Your task to perform on an android device: turn vacation reply on in the gmail app Image 0: 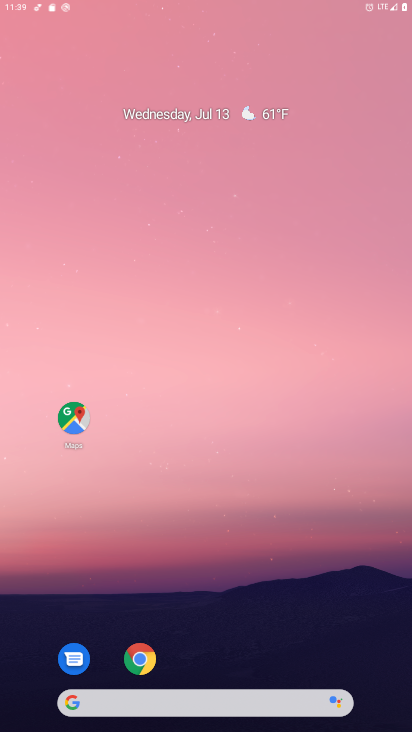
Step 0: press home button
Your task to perform on an android device: turn vacation reply on in the gmail app Image 1: 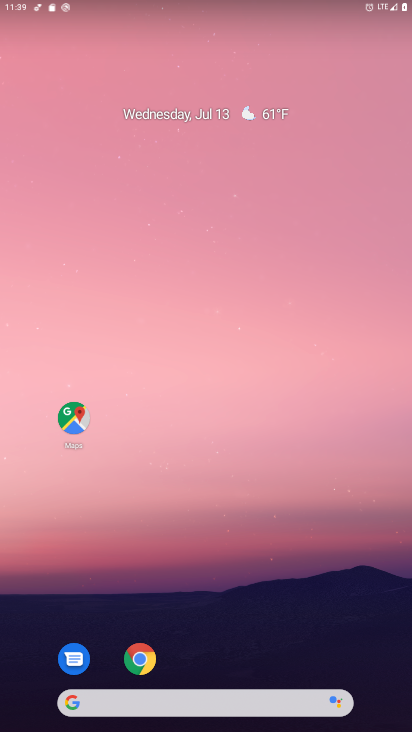
Step 1: drag from (208, 669) to (225, 49)
Your task to perform on an android device: turn vacation reply on in the gmail app Image 2: 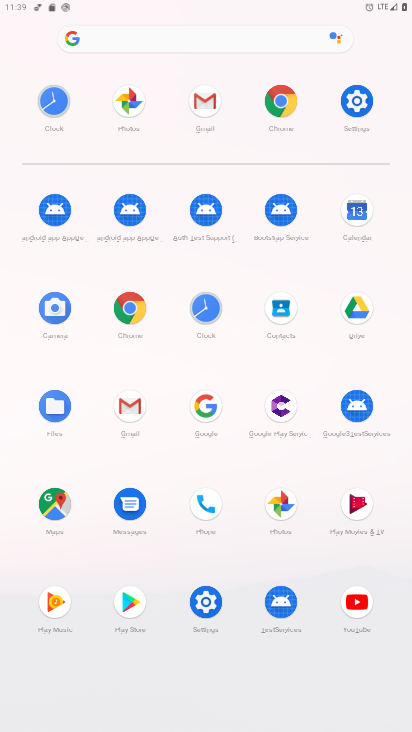
Step 2: click (205, 94)
Your task to perform on an android device: turn vacation reply on in the gmail app Image 3: 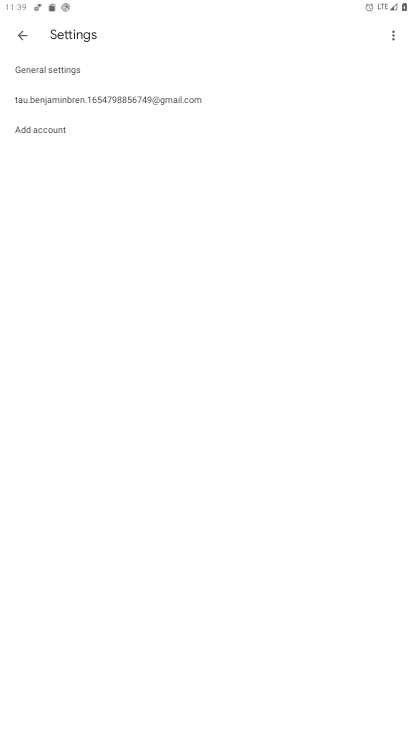
Step 3: click (154, 94)
Your task to perform on an android device: turn vacation reply on in the gmail app Image 4: 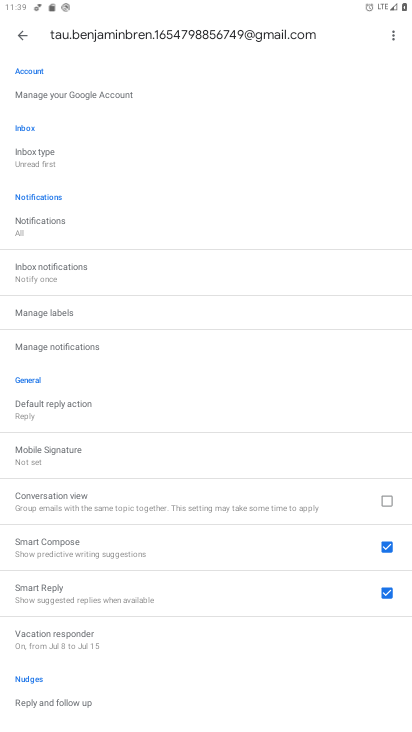
Step 4: click (149, 648)
Your task to perform on an android device: turn vacation reply on in the gmail app Image 5: 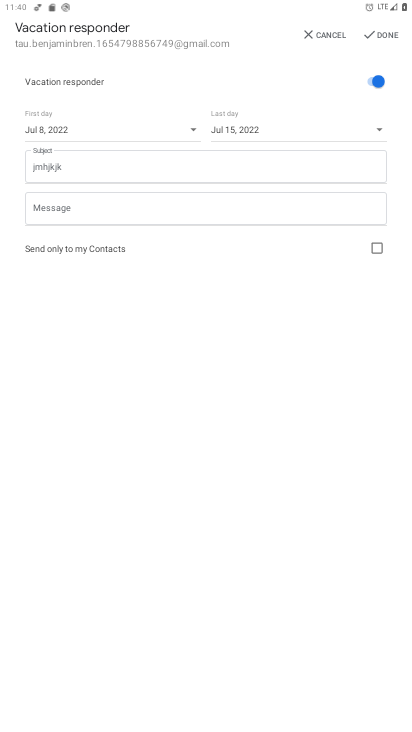
Step 5: task complete